Your task to perform on an android device: change the clock style Image 0: 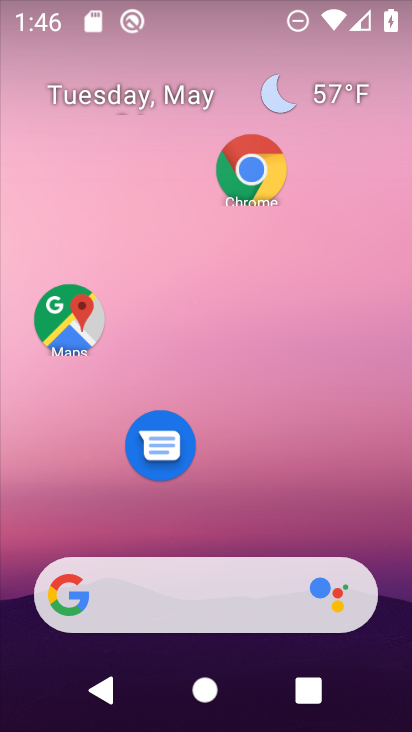
Step 0: drag from (235, 725) to (228, 215)
Your task to perform on an android device: change the clock style Image 1: 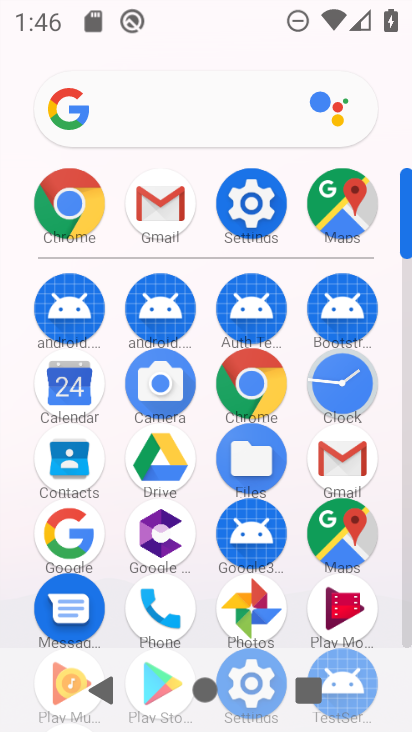
Step 1: click (341, 373)
Your task to perform on an android device: change the clock style Image 2: 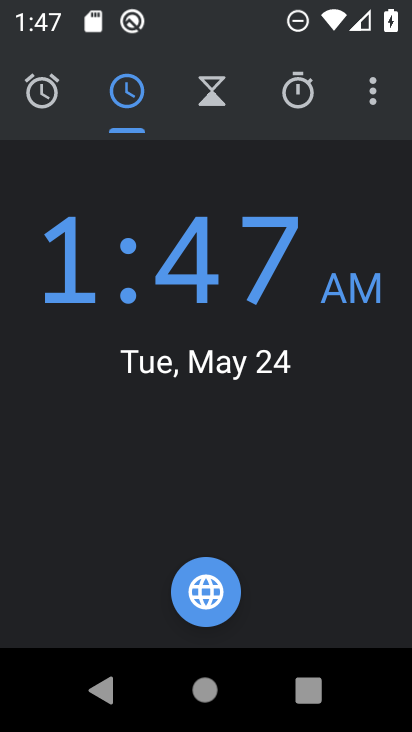
Step 2: click (374, 102)
Your task to perform on an android device: change the clock style Image 3: 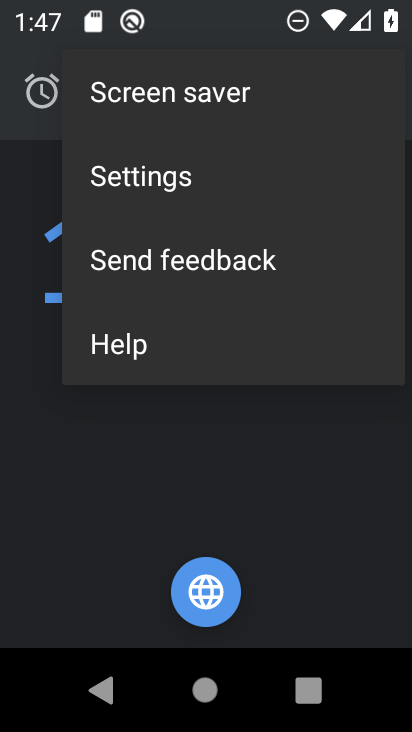
Step 3: click (154, 178)
Your task to perform on an android device: change the clock style Image 4: 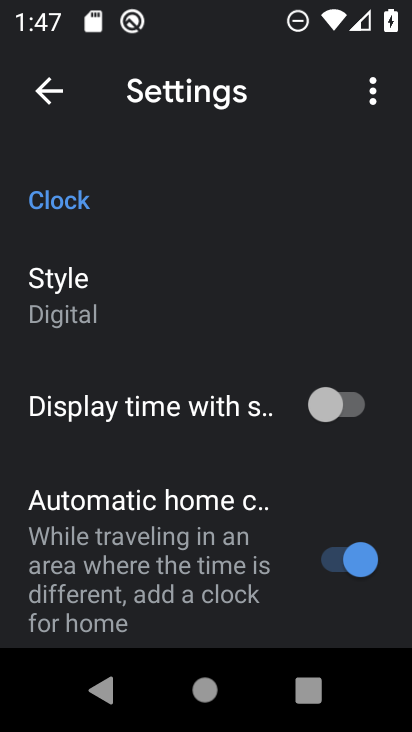
Step 4: click (60, 309)
Your task to perform on an android device: change the clock style Image 5: 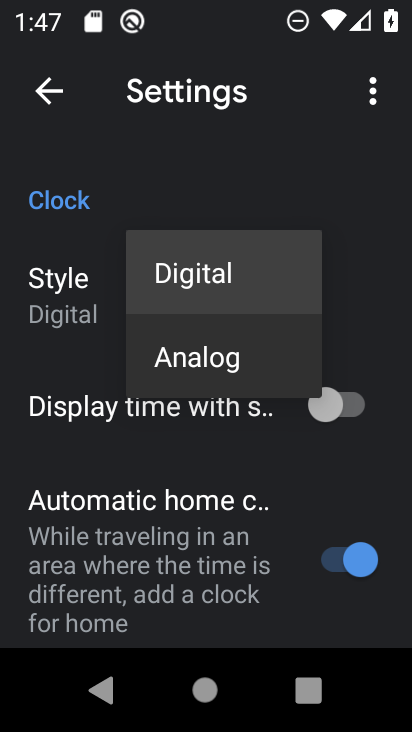
Step 5: click (193, 351)
Your task to perform on an android device: change the clock style Image 6: 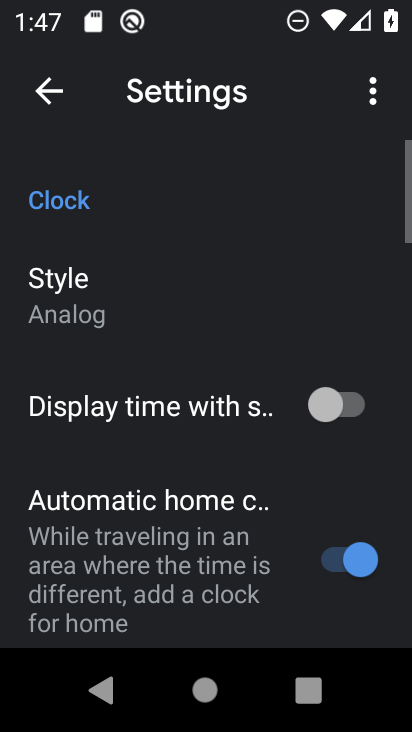
Step 6: task complete